Your task to perform on an android device: Open location settings Image 0: 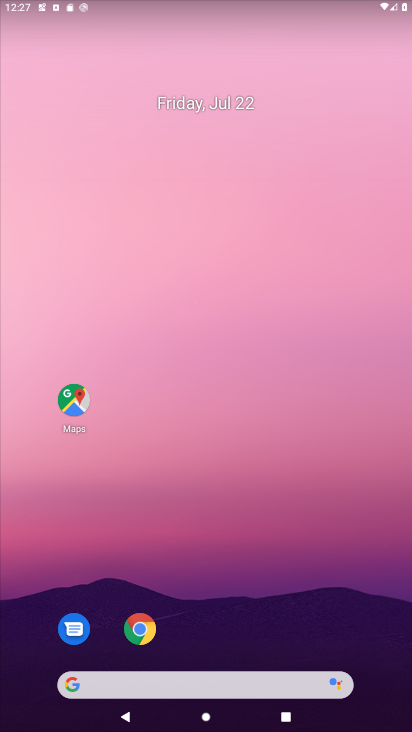
Step 0: drag from (253, 509) to (304, 214)
Your task to perform on an android device: Open location settings Image 1: 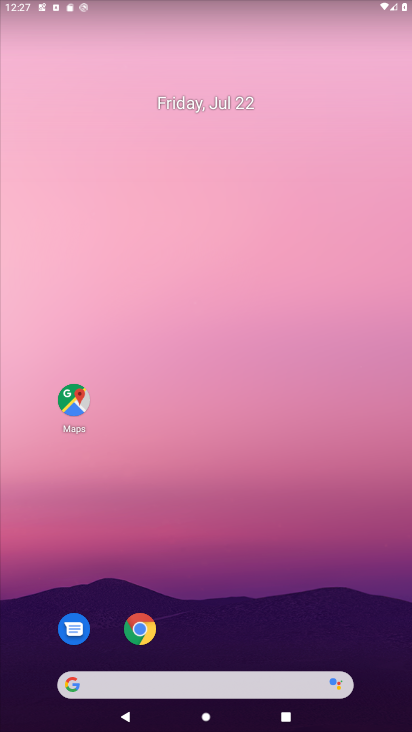
Step 1: drag from (222, 619) to (311, 110)
Your task to perform on an android device: Open location settings Image 2: 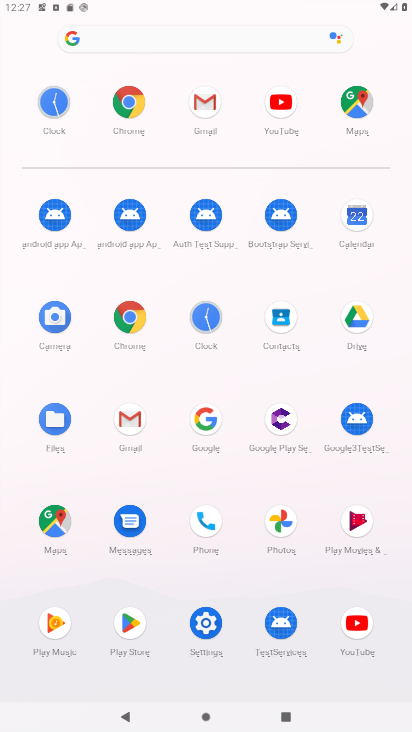
Step 2: click (208, 617)
Your task to perform on an android device: Open location settings Image 3: 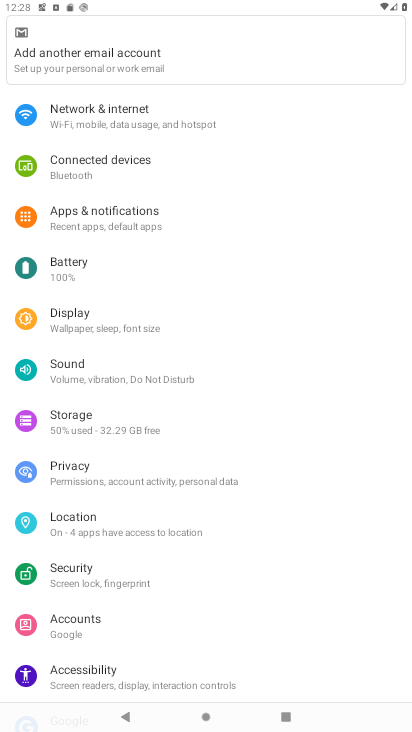
Step 3: click (186, 532)
Your task to perform on an android device: Open location settings Image 4: 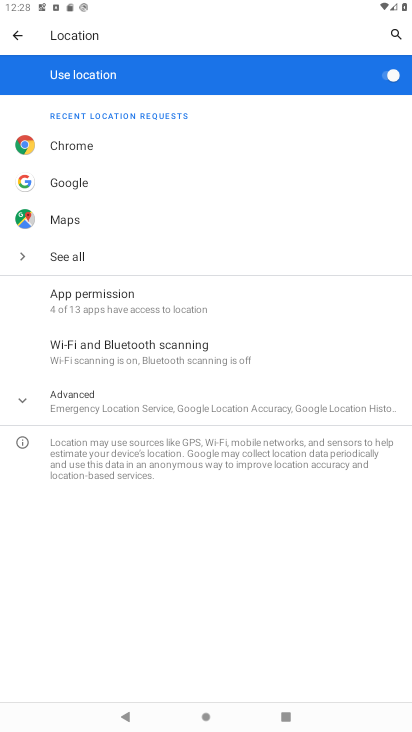
Step 4: task complete